Your task to perform on an android device: turn vacation reply on in the gmail app Image 0: 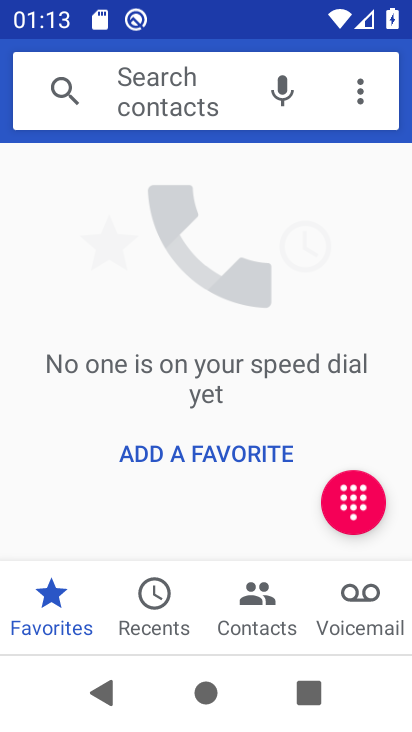
Step 0: press home button
Your task to perform on an android device: turn vacation reply on in the gmail app Image 1: 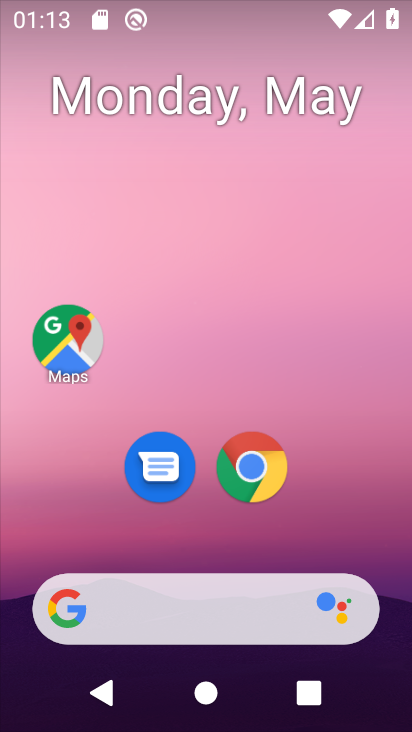
Step 1: drag from (178, 563) to (163, 57)
Your task to perform on an android device: turn vacation reply on in the gmail app Image 2: 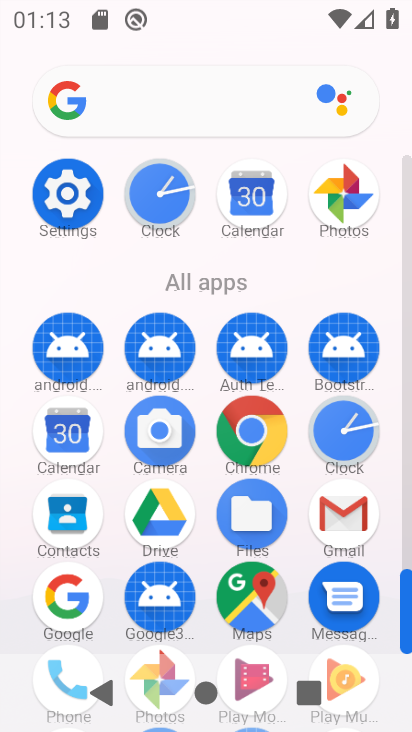
Step 2: click (345, 514)
Your task to perform on an android device: turn vacation reply on in the gmail app Image 3: 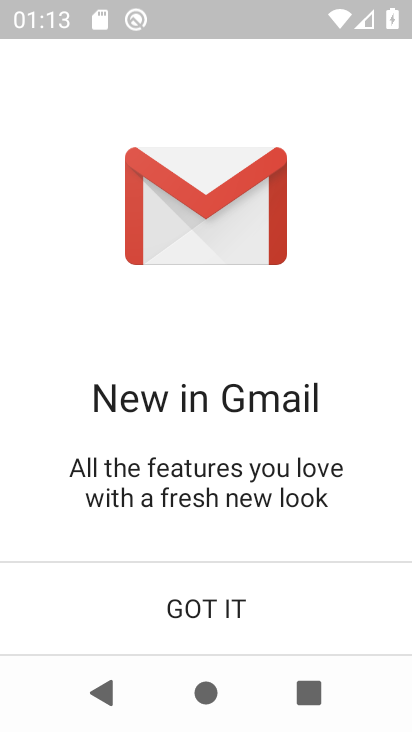
Step 3: click (197, 622)
Your task to perform on an android device: turn vacation reply on in the gmail app Image 4: 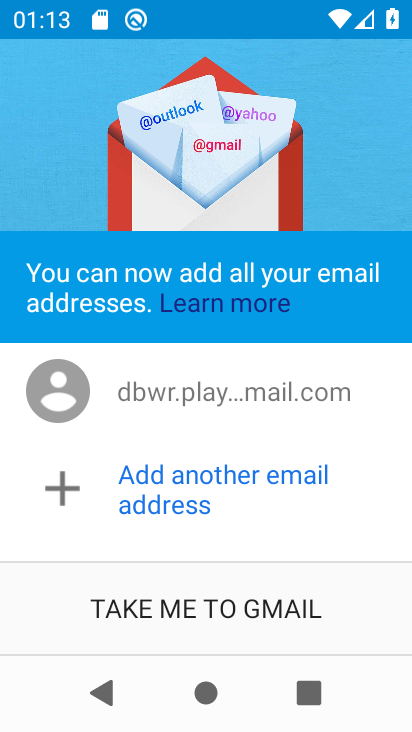
Step 4: click (199, 620)
Your task to perform on an android device: turn vacation reply on in the gmail app Image 5: 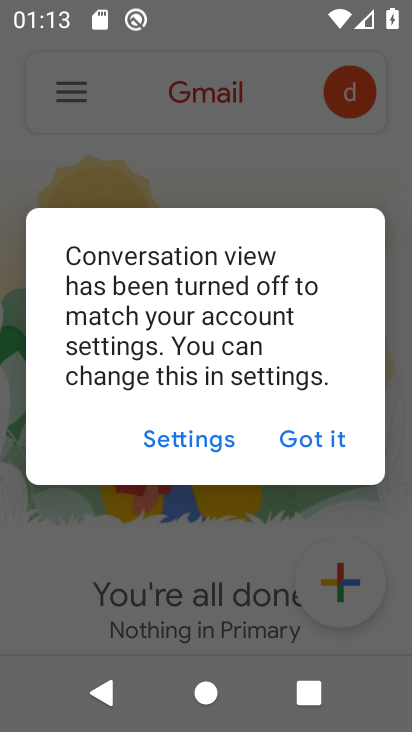
Step 5: click (293, 444)
Your task to perform on an android device: turn vacation reply on in the gmail app Image 6: 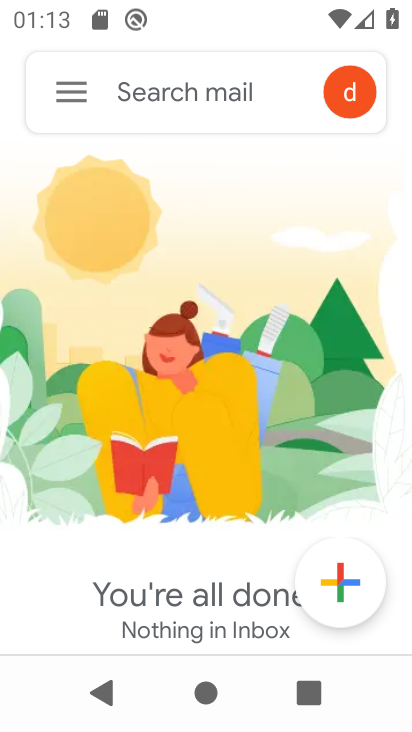
Step 6: click (70, 104)
Your task to perform on an android device: turn vacation reply on in the gmail app Image 7: 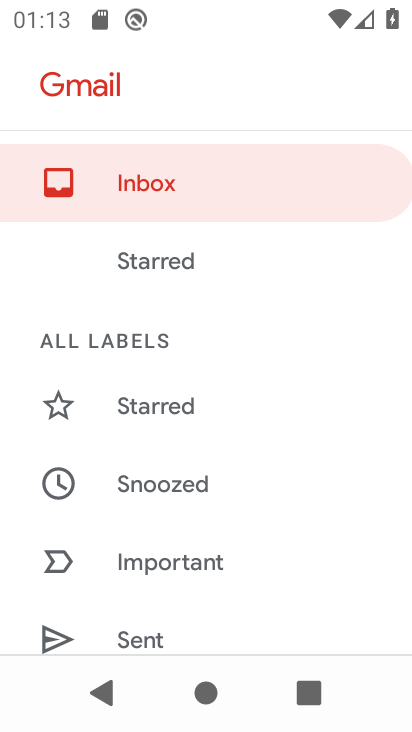
Step 7: drag from (154, 558) to (145, 131)
Your task to perform on an android device: turn vacation reply on in the gmail app Image 8: 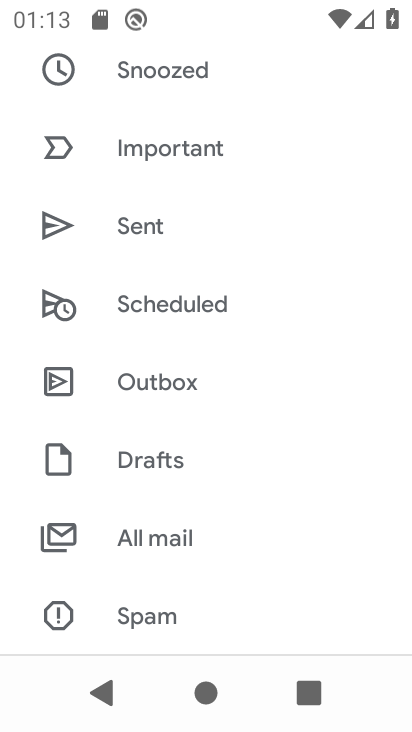
Step 8: drag from (197, 559) to (189, 130)
Your task to perform on an android device: turn vacation reply on in the gmail app Image 9: 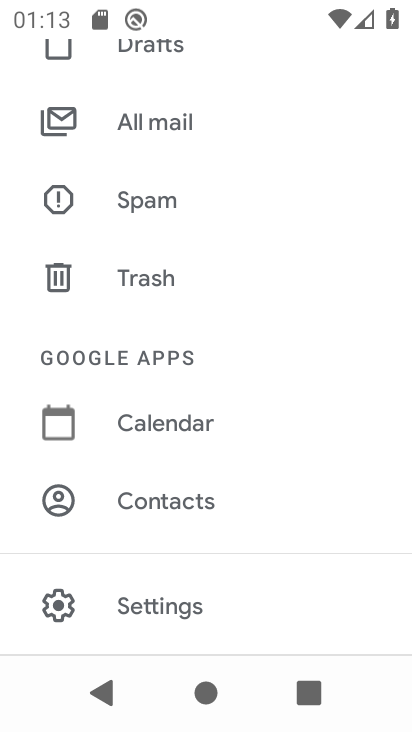
Step 9: click (156, 605)
Your task to perform on an android device: turn vacation reply on in the gmail app Image 10: 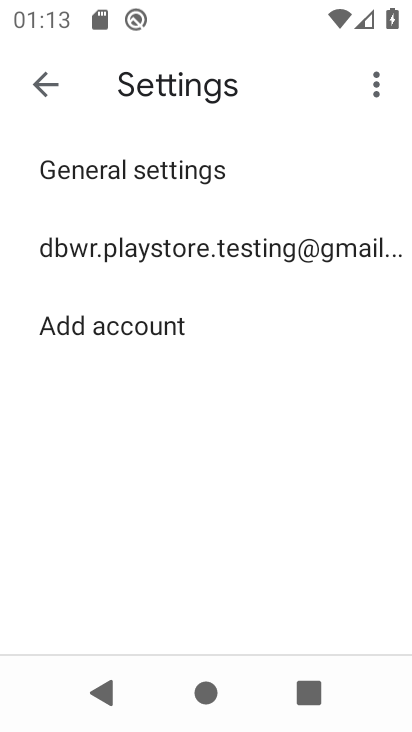
Step 10: click (115, 250)
Your task to perform on an android device: turn vacation reply on in the gmail app Image 11: 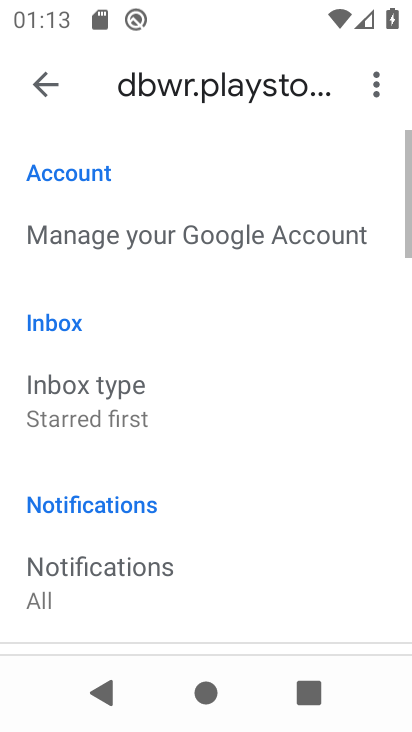
Step 11: drag from (151, 570) to (143, 141)
Your task to perform on an android device: turn vacation reply on in the gmail app Image 12: 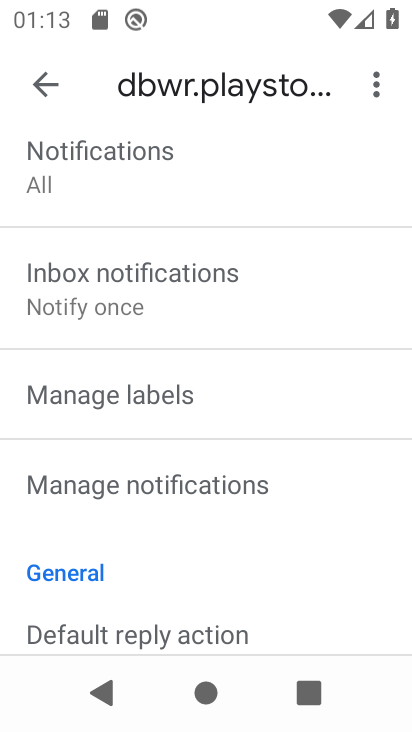
Step 12: drag from (156, 503) to (129, 145)
Your task to perform on an android device: turn vacation reply on in the gmail app Image 13: 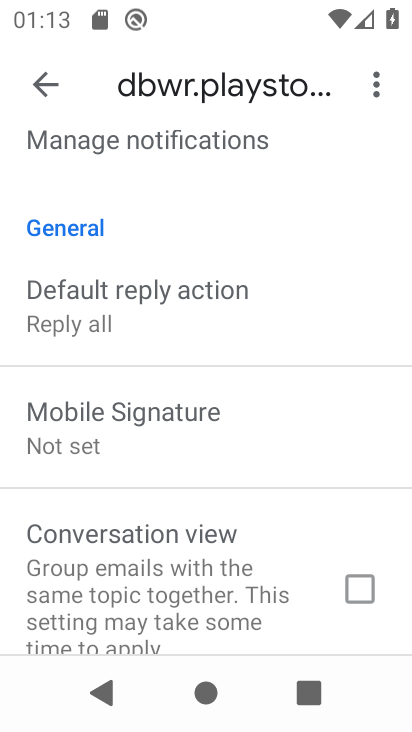
Step 13: drag from (213, 487) to (196, 193)
Your task to perform on an android device: turn vacation reply on in the gmail app Image 14: 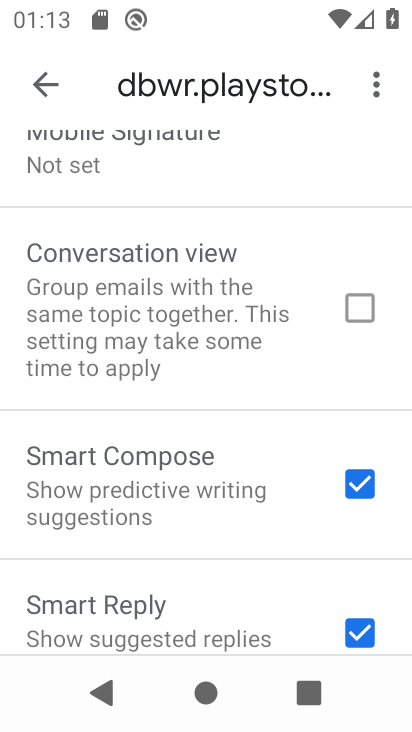
Step 14: drag from (241, 577) to (237, 227)
Your task to perform on an android device: turn vacation reply on in the gmail app Image 15: 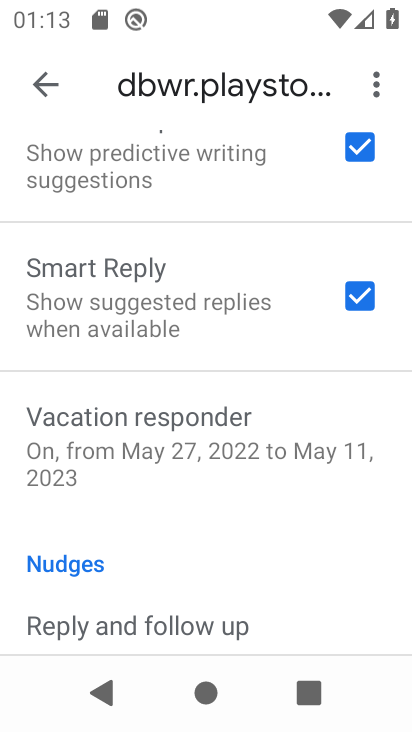
Step 15: click (230, 445)
Your task to perform on an android device: turn vacation reply on in the gmail app Image 16: 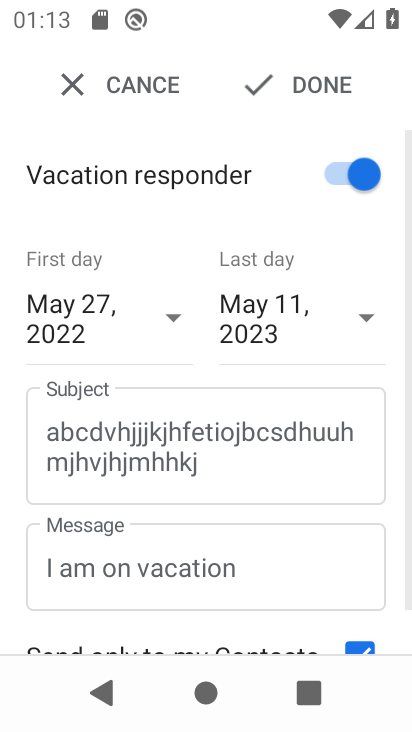
Step 16: click (263, 87)
Your task to perform on an android device: turn vacation reply on in the gmail app Image 17: 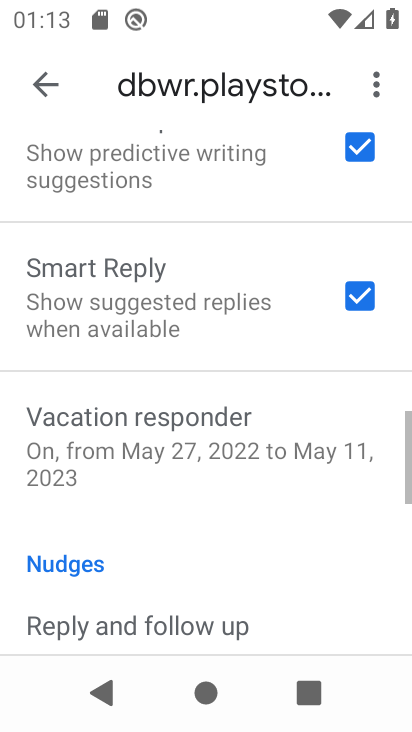
Step 17: task complete